Your task to perform on an android device: empty trash in the gmail app Image 0: 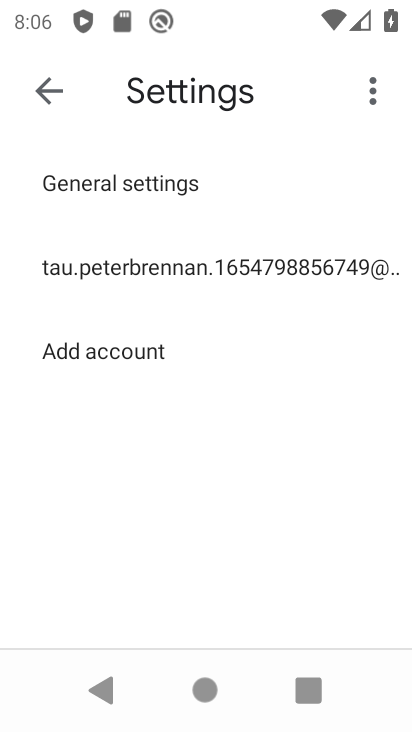
Step 0: click (35, 97)
Your task to perform on an android device: empty trash in the gmail app Image 1: 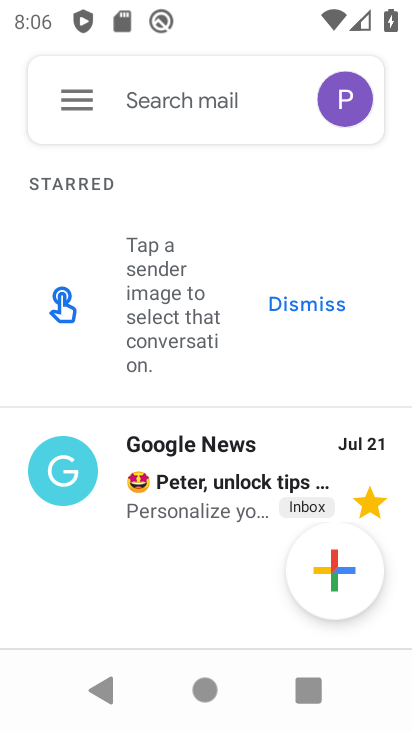
Step 1: click (74, 93)
Your task to perform on an android device: empty trash in the gmail app Image 2: 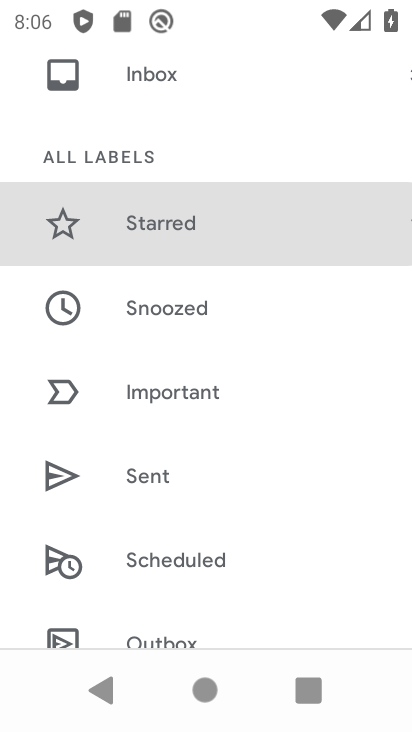
Step 2: drag from (262, 613) to (257, 175)
Your task to perform on an android device: empty trash in the gmail app Image 3: 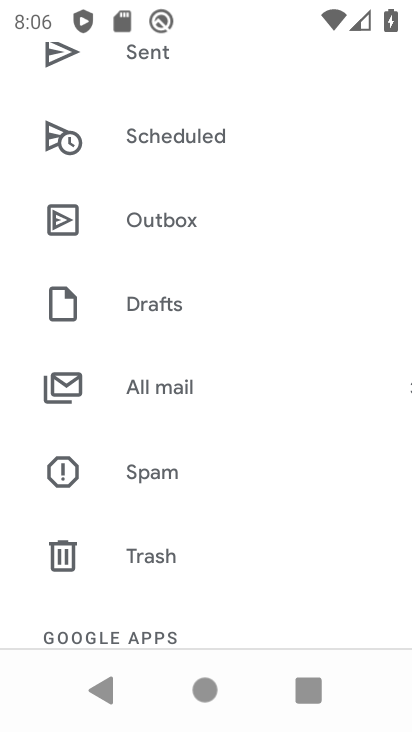
Step 3: click (151, 553)
Your task to perform on an android device: empty trash in the gmail app Image 4: 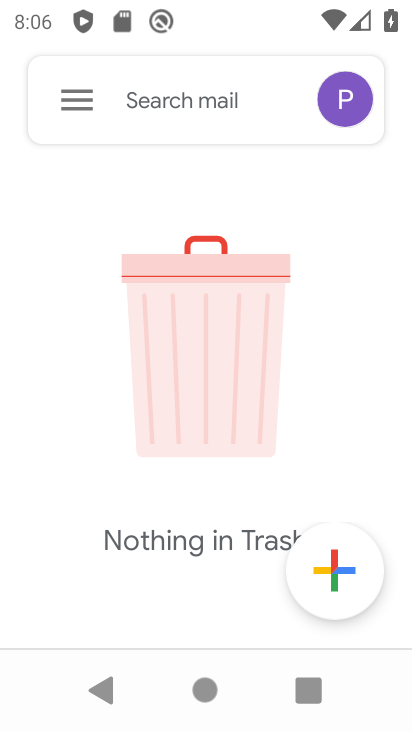
Step 4: task complete